Your task to perform on an android device: toggle data saver in the chrome app Image 0: 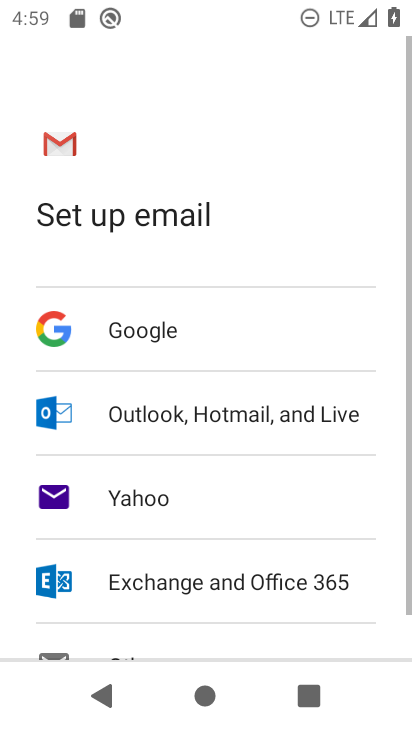
Step 0: press back button
Your task to perform on an android device: toggle data saver in the chrome app Image 1: 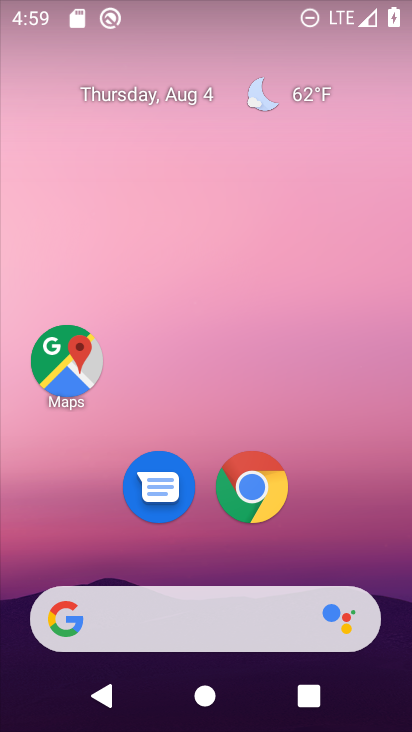
Step 1: click (246, 496)
Your task to perform on an android device: toggle data saver in the chrome app Image 2: 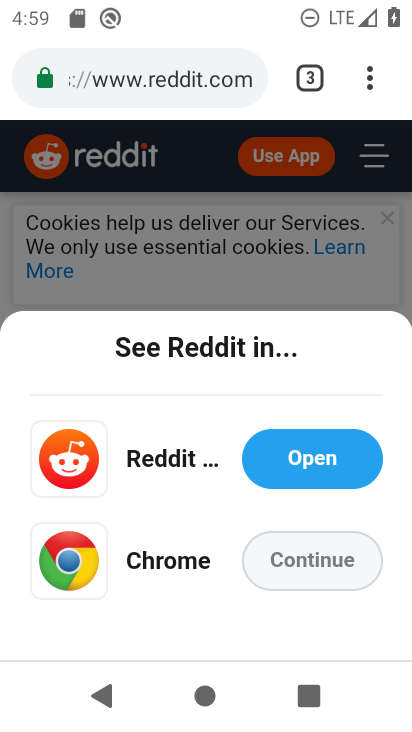
Step 2: drag from (368, 75) to (124, 539)
Your task to perform on an android device: toggle data saver in the chrome app Image 3: 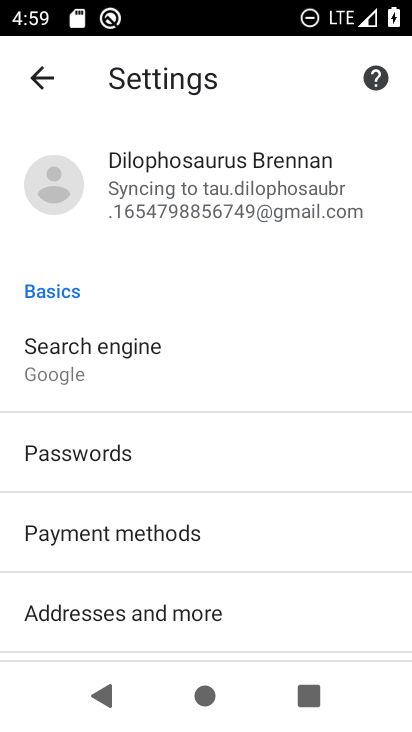
Step 3: drag from (128, 562) to (221, 71)
Your task to perform on an android device: toggle data saver in the chrome app Image 4: 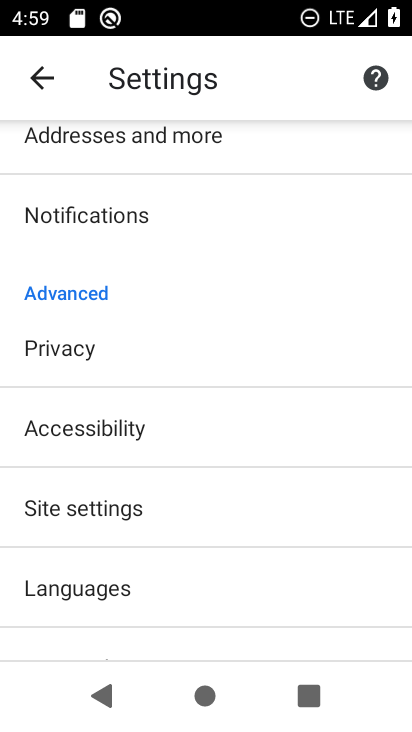
Step 4: drag from (109, 584) to (228, 118)
Your task to perform on an android device: toggle data saver in the chrome app Image 5: 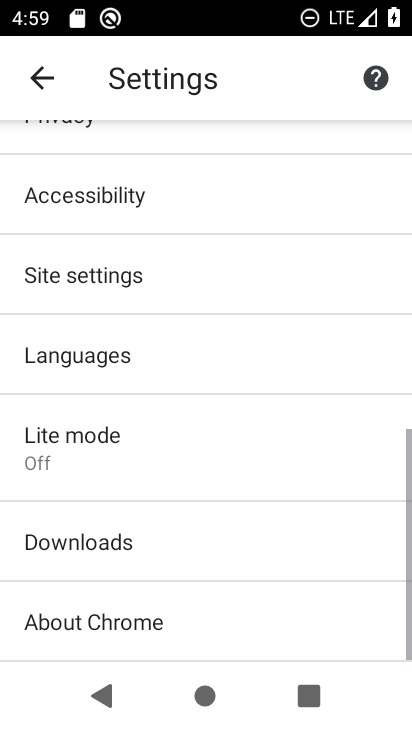
Step 5: click (115, 473)
Your task to perform on an android device: toggle data saver in the chrome app Image 6: 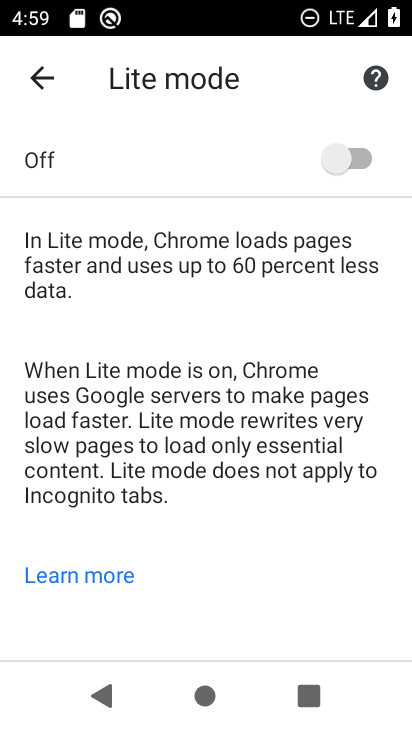
Step 6: click (355, 148)
Your task to perform on an android device: toggle data saver in the chrome app Image 7: 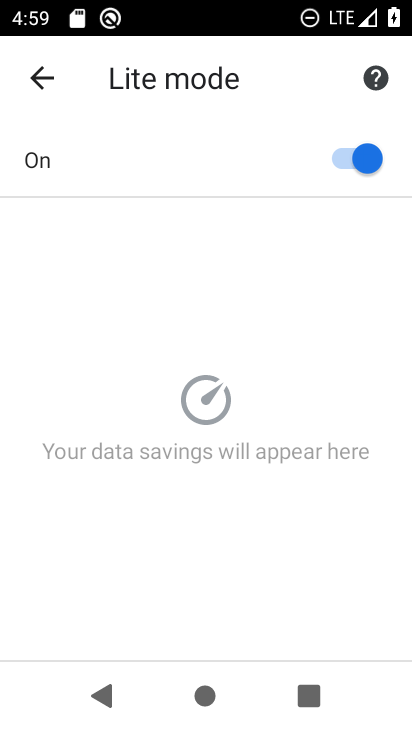
Step 7: task complete